Your task to perform on an android device: Add razer nari to the cart on newegg Image 0: 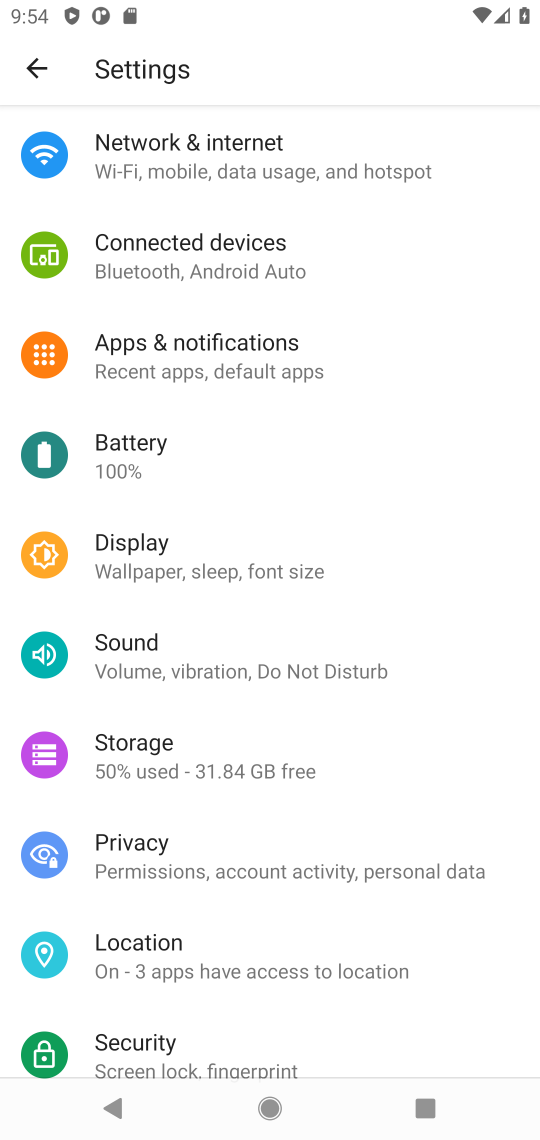
Step 0: press home button
Your task to perform on an android device: Add razer nari to the cart on newegg Image 1: 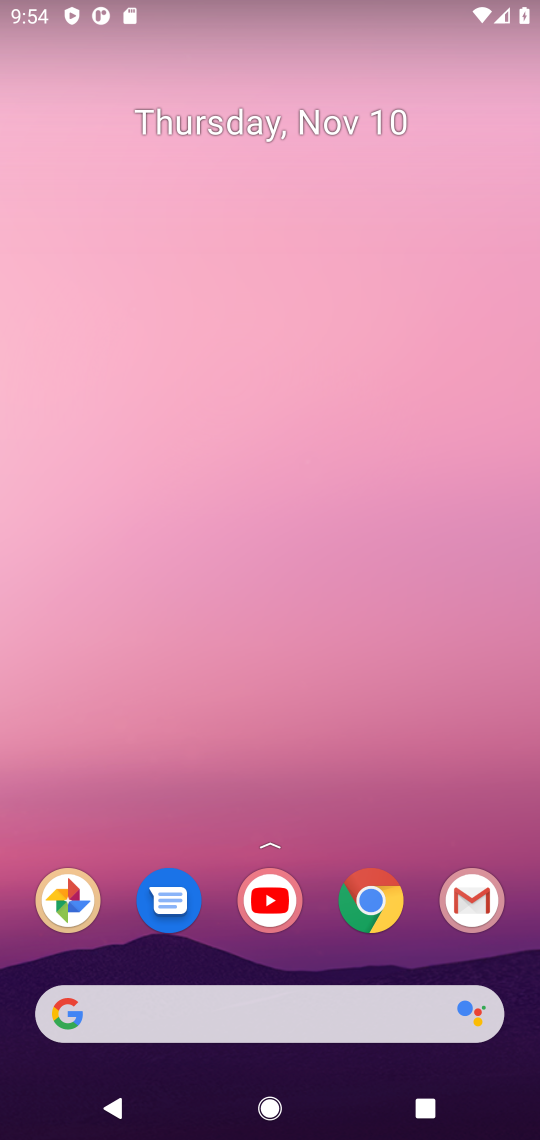
Step 1: click (370, 906)
Your task to perform on an android device: Add razer nari to the cart on newegg Image 2: 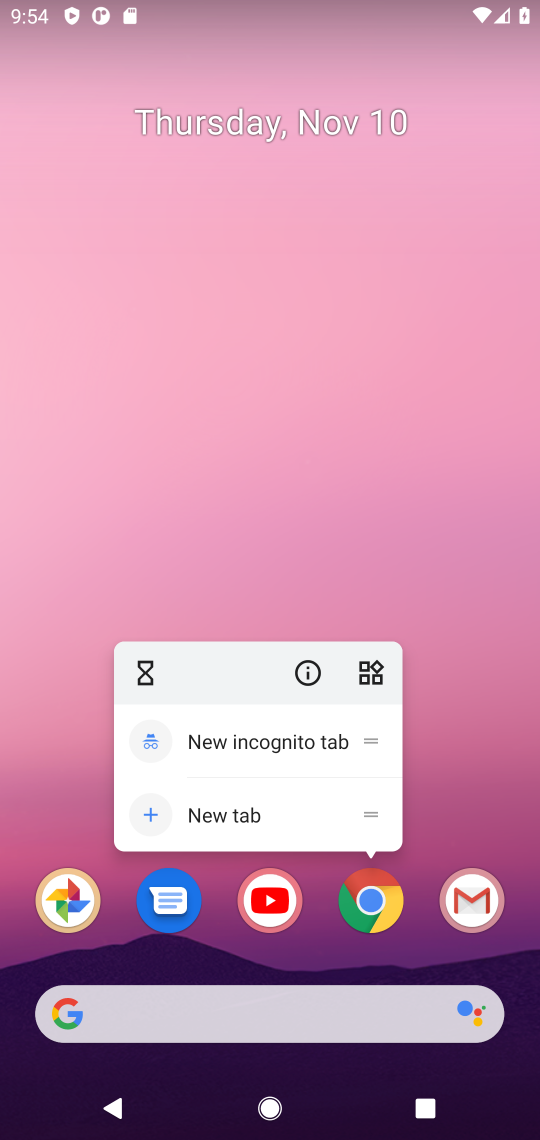
Step 2: click (370, 906)
Your task to perform on an android device: Add razer nari to the cart on newegg Image 3: 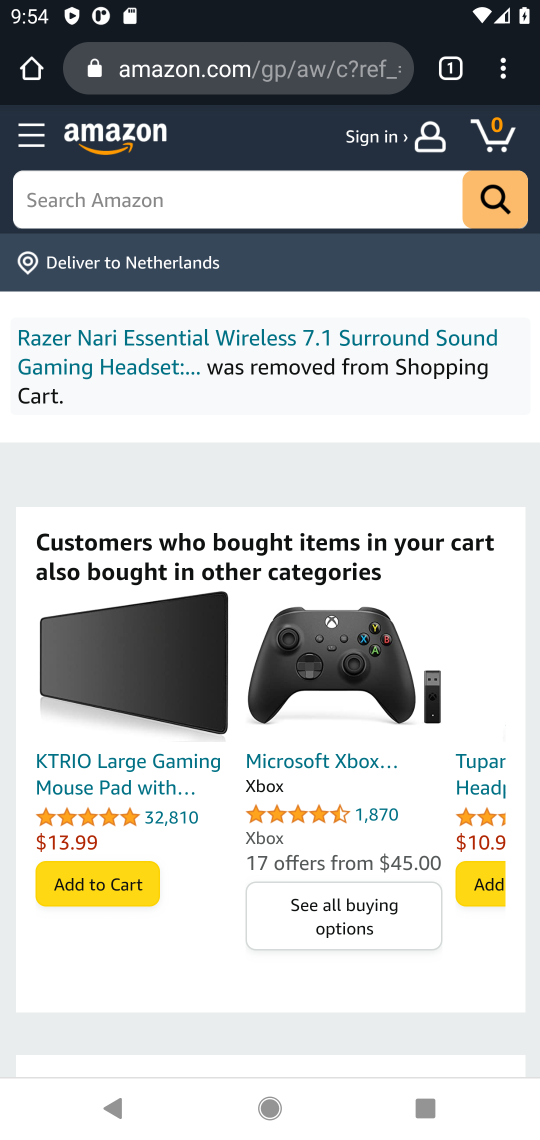
Step 3: click (303, 65)
Your task to perform on an android device: Add razer nari to the cart on newegg Image 4: 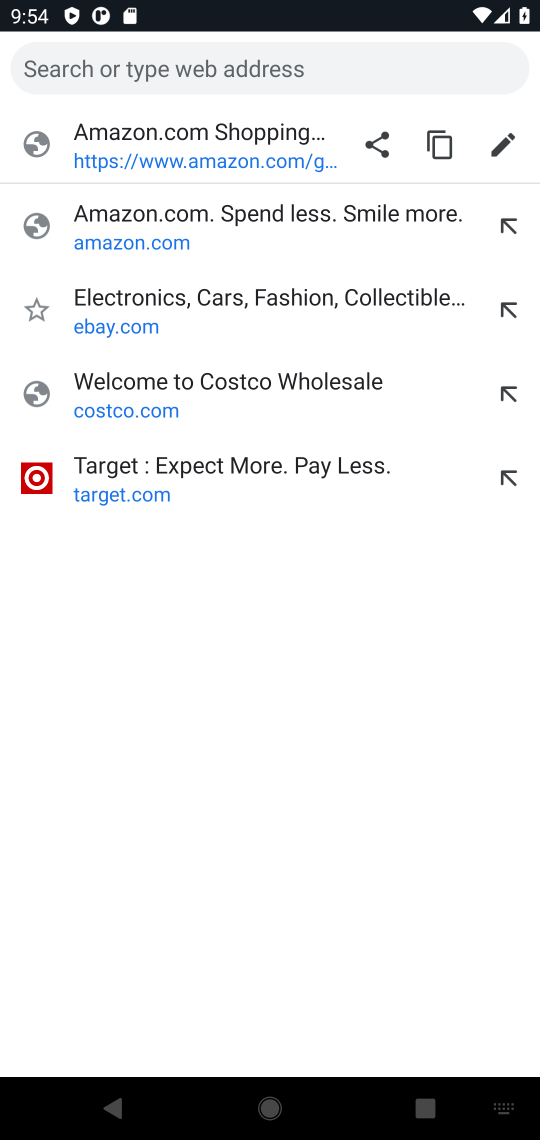
Step 4: type "newegg"
Your task to perform on an android device: Add razer nari to the cart on newegg Image 5: 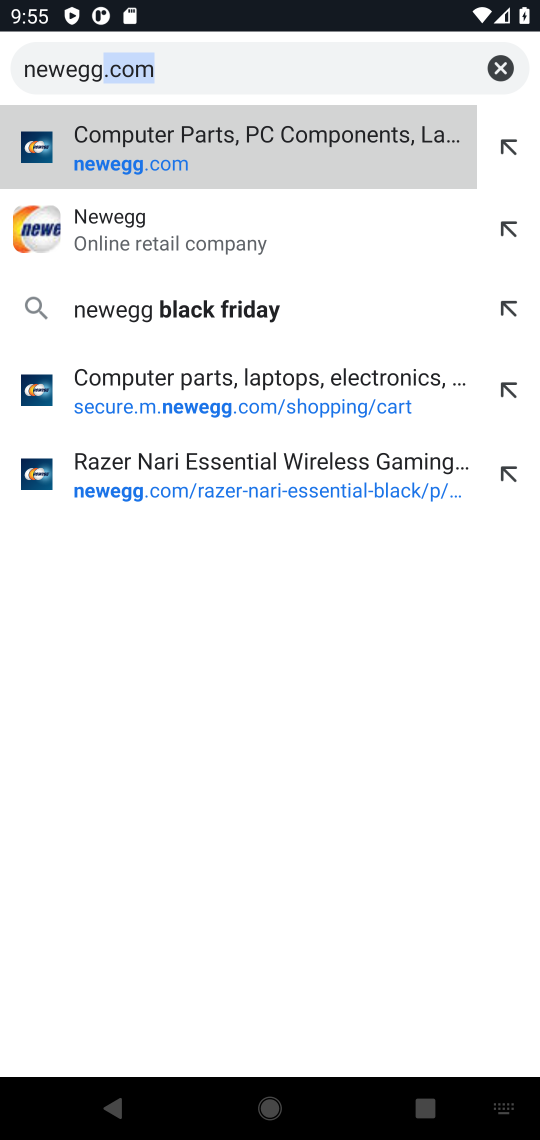
Step 5: press enter
Your task to perform on an android device: Add razer nari to the cart on newegg Image 6: 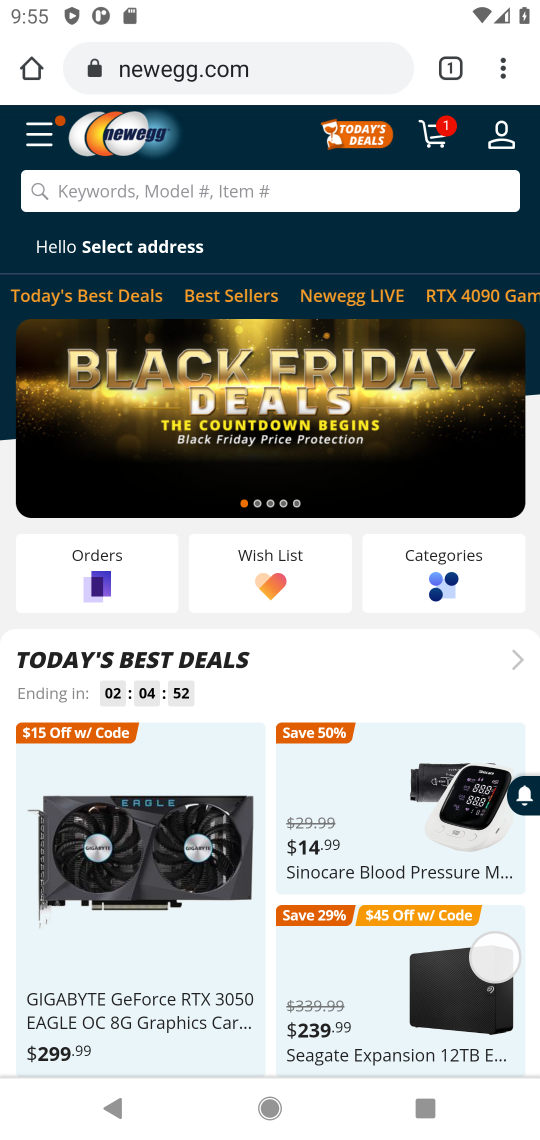
Step 6: click (176, 191)
Your task to perform on an android device: Add razer nari to the cart on newegg Image 7: 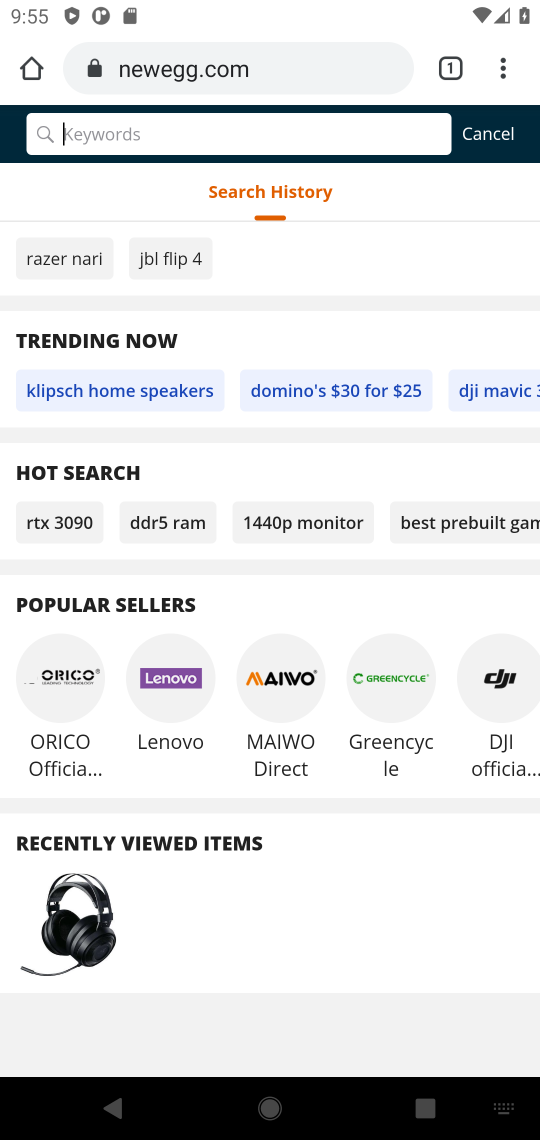
Step 7: type " razer nari"
Your task to perform on an android device: Add razer nari to the cart on newegg Image 8: 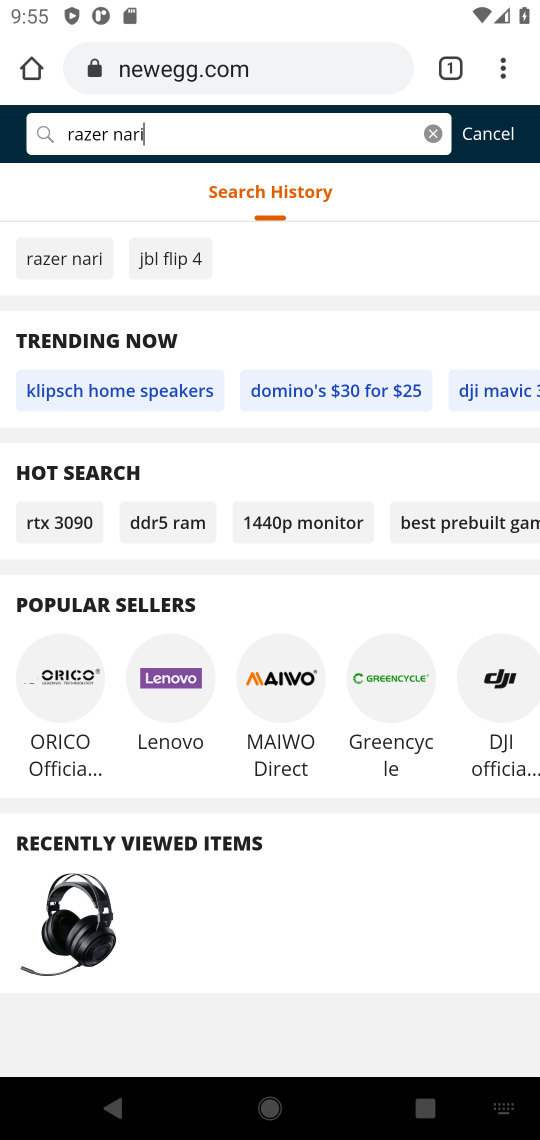
Step 8: press enter
Your task to perform on an android device: Add razer nari to the cart on newegg Image 9: 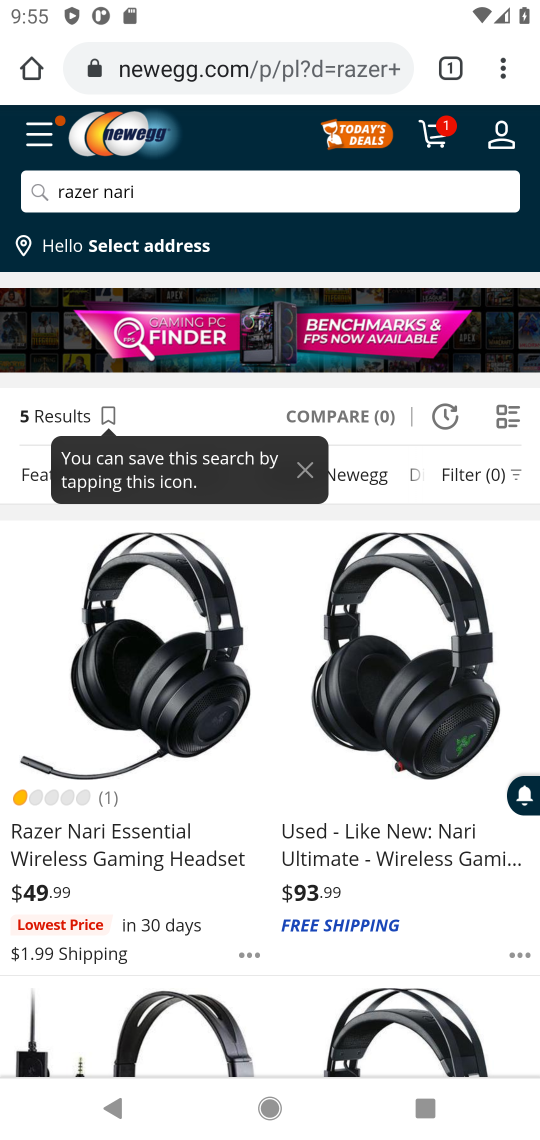
Step 9: click (108, 842)
Your task to perform on an android device: Add razer nari to the cart on newegg Image 10: 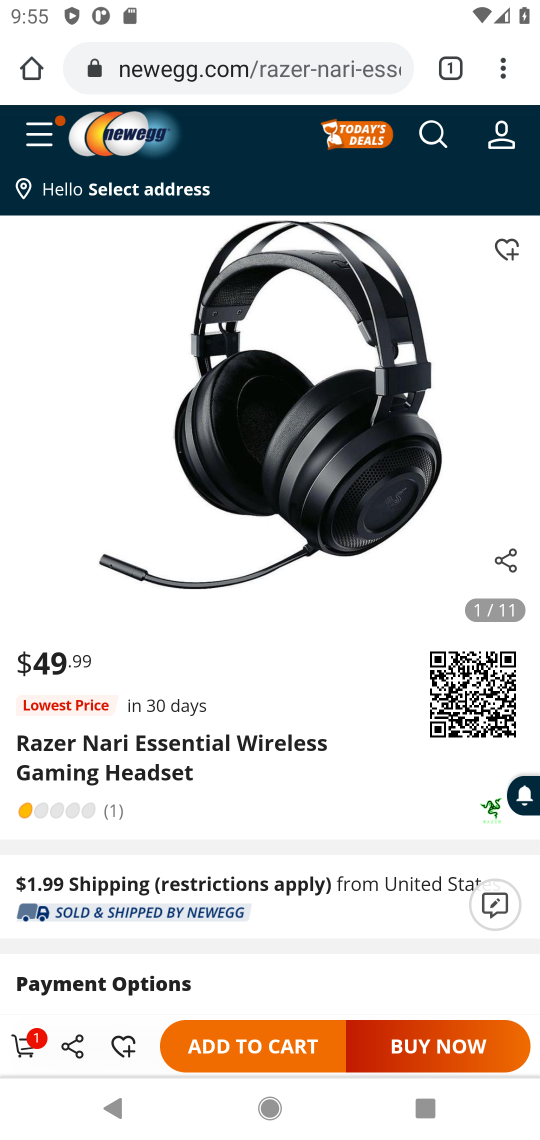
Step 10: click (273, 1048)
Your task to perform on an android device: Add razer nari to the cart on newegg Image 11: 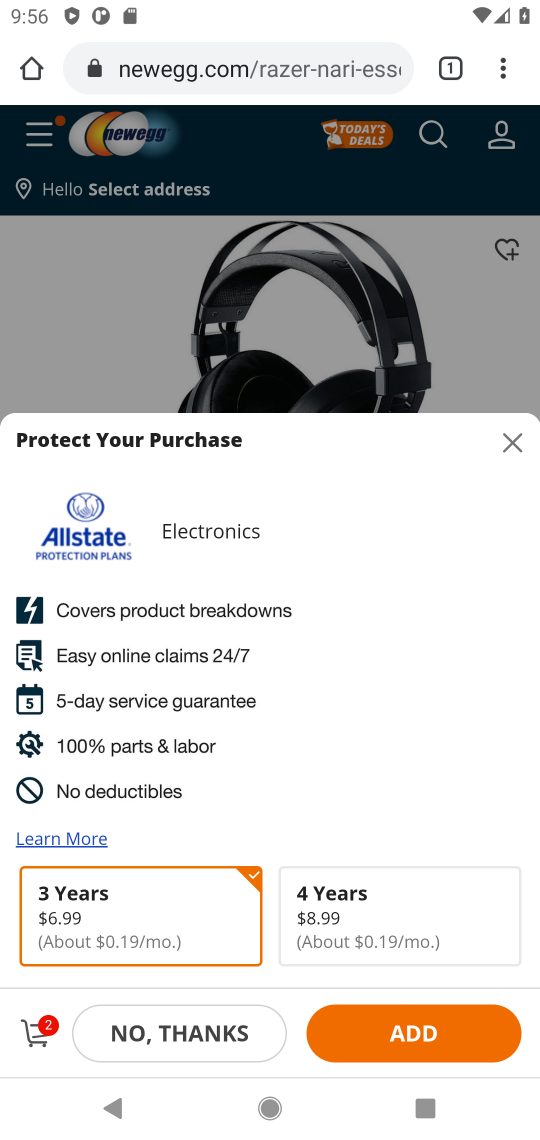
Step 11: click (35, 1023)
Your task to perform on an android device: Add razer nari to the cart on newegg Image 12: 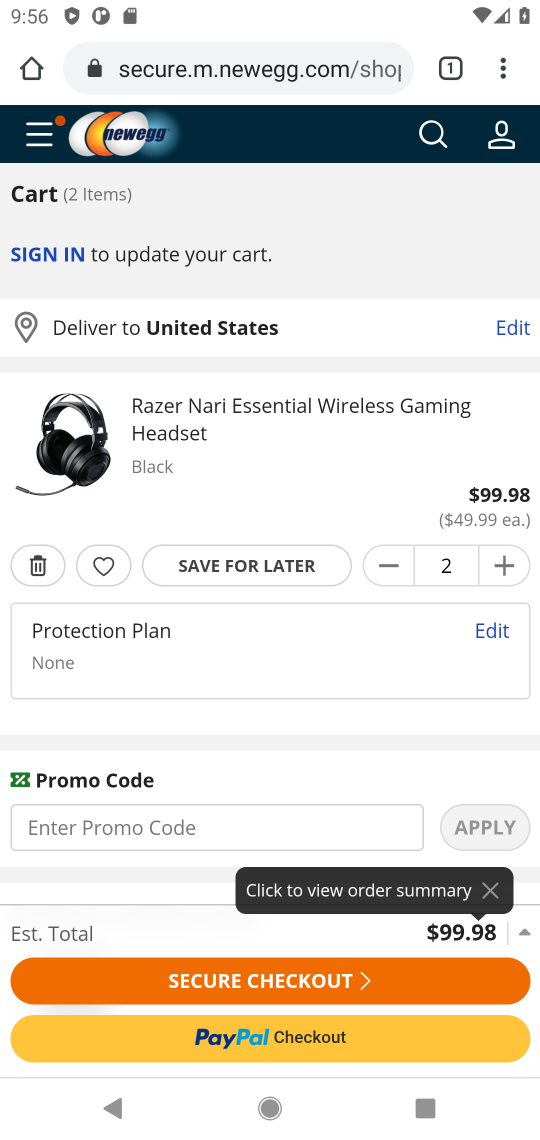
Step 12: task complete